Your task to perform on an android device: all mails in gmail Image 0: 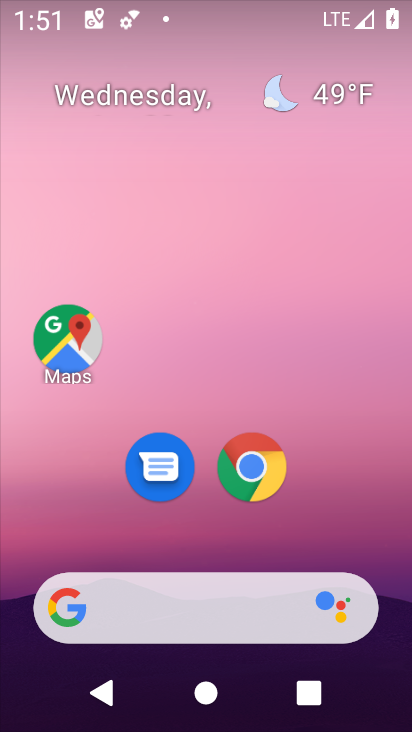
Step 0: drag from (399, 609) to (344, 257)
Your task to perform on an android device: all mails in gmail Image 1: 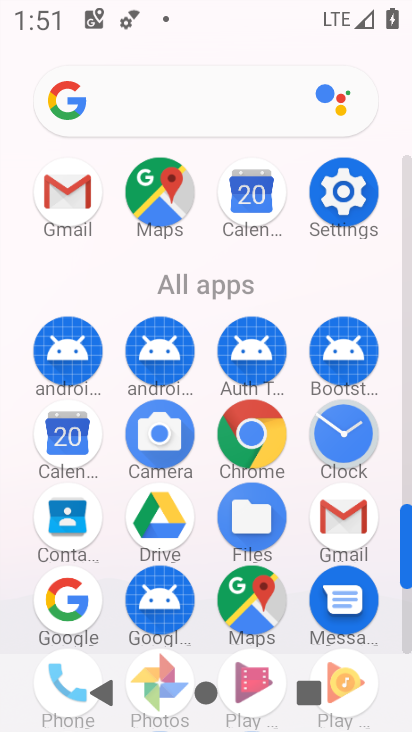
Step 1: click (407, 640)
Your task to perform on an android device: all mails in gmail Image 2: 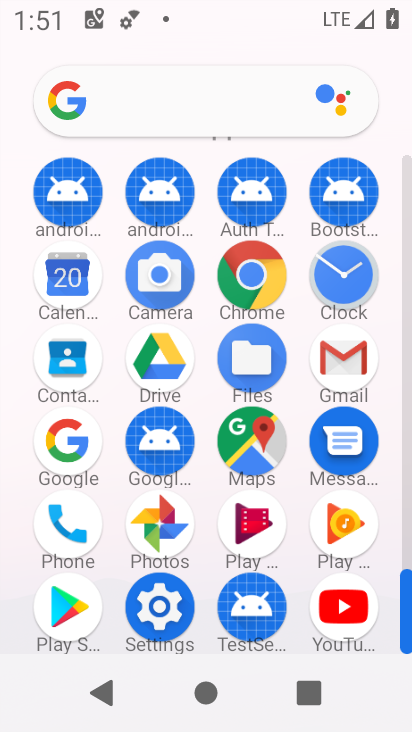
Step 2: click (345, 356)
Your task to perform on an android device: all mails in gmail Image 3: 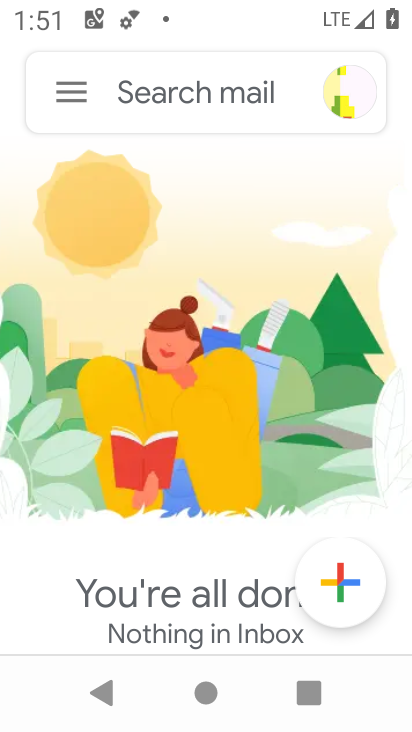
Step 3: click (71, 92)
Your task to perform on an android device: all mails in gmail Image 4: 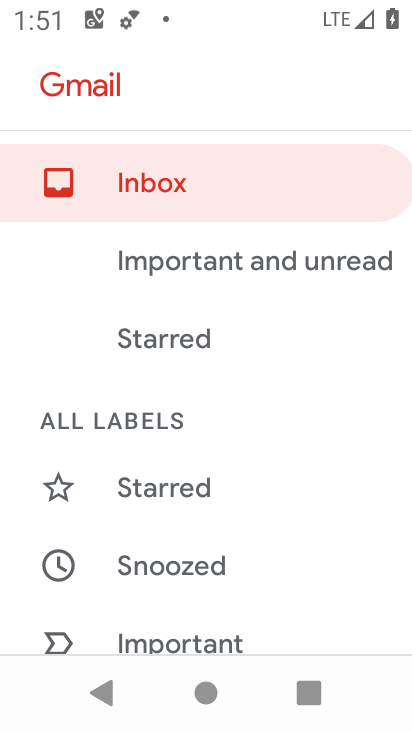
Step 4: drag from (284, 573) to (285, 318)
Your task to perform on an android device: all mails in gmail Image 5: 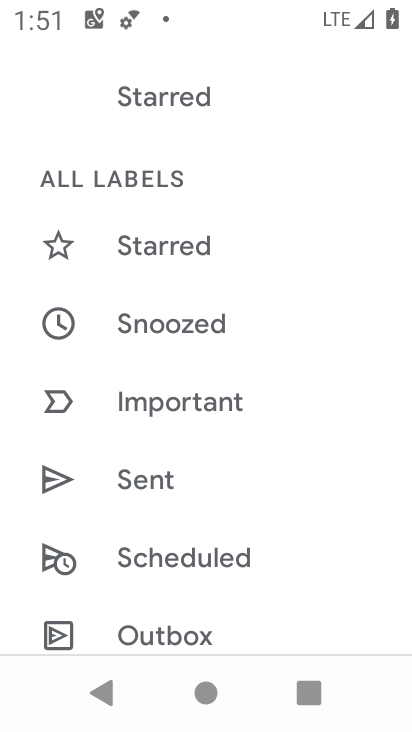
Step 5: drag from (280, 526) to (274, 255)
Your task to perform on an android device: all mails in gmail Image 6: 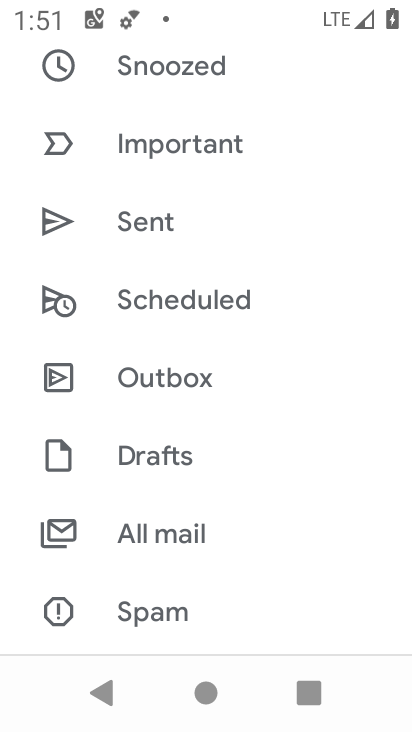
Step 6: click (162, 531)
Your task to perform on an android device: all mails in gmail Image 7: 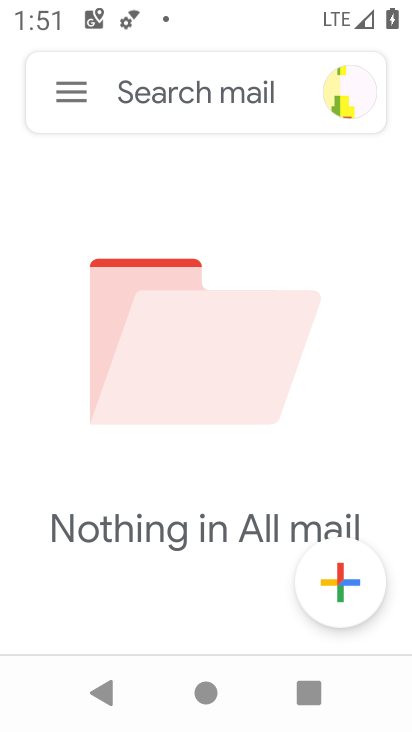
Step 7: task complete